Your task to perform on an android device: Open wifi settings Image 0: 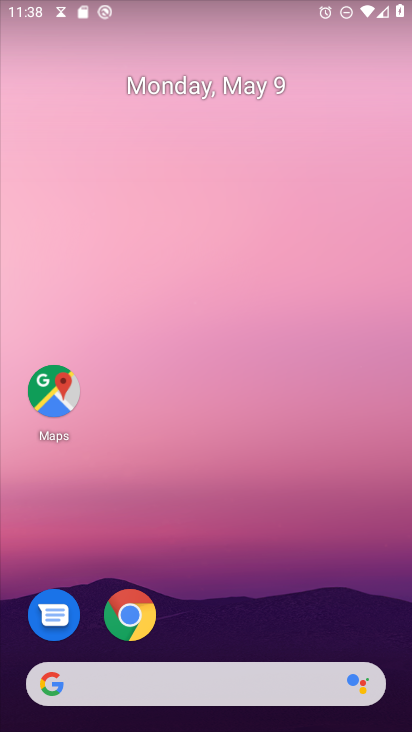
Step 0: drag from (214, 724) to (178, 266)
Your task to perform on an android device: Open wifi settings Image 1: 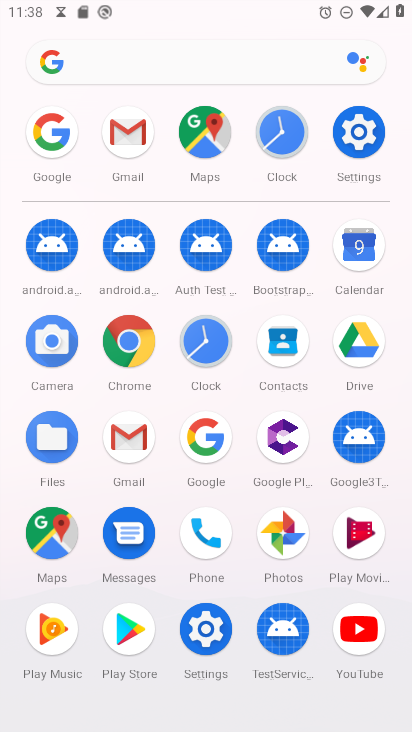
Step 1: click (360, 120)
Your task to perform on an android device: Open wifi settings Image 2: 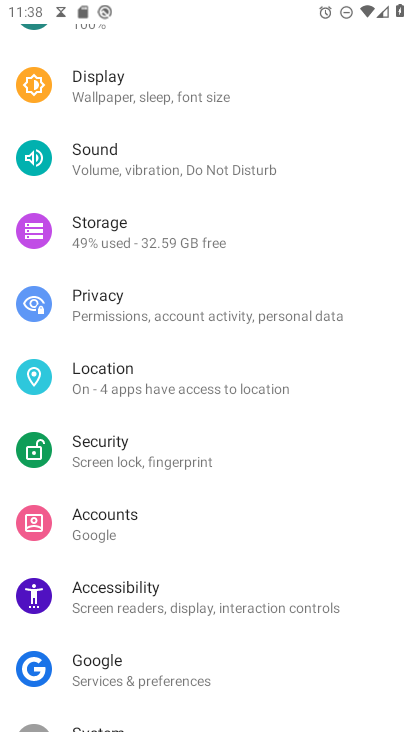
Step 2: drag from (206, 99) to (208, 395)
Your task to perform on an android device: Open wifi settings Image 3: 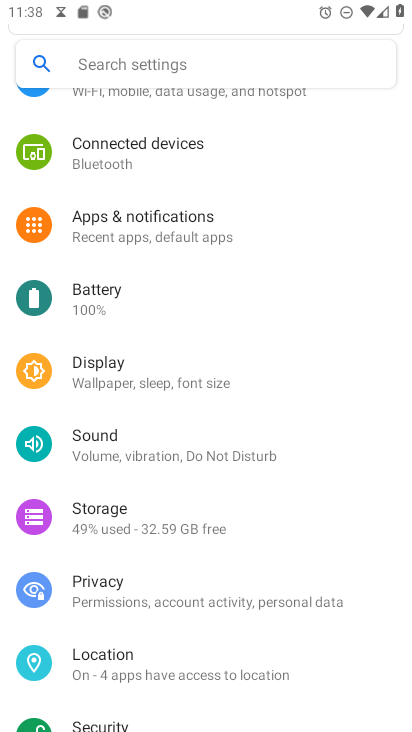
Step 3: drag from (235, 134) to (247, 494)
Your task to perform on an android device: Open wifi settings Image 4: 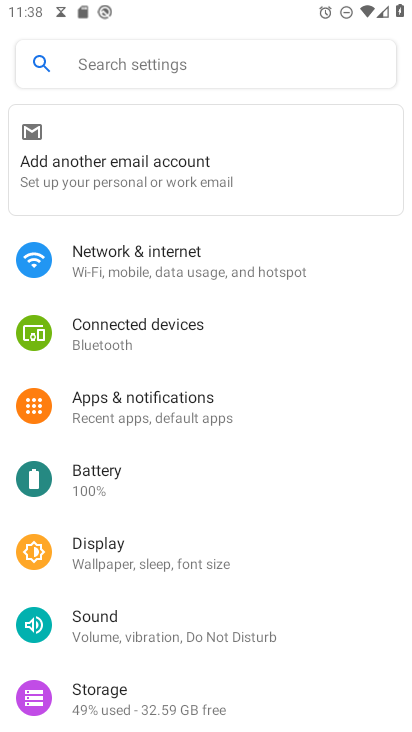
Step 4: click (136, 260)
Your task to perform on an android device: Open wifi settings Image 5: 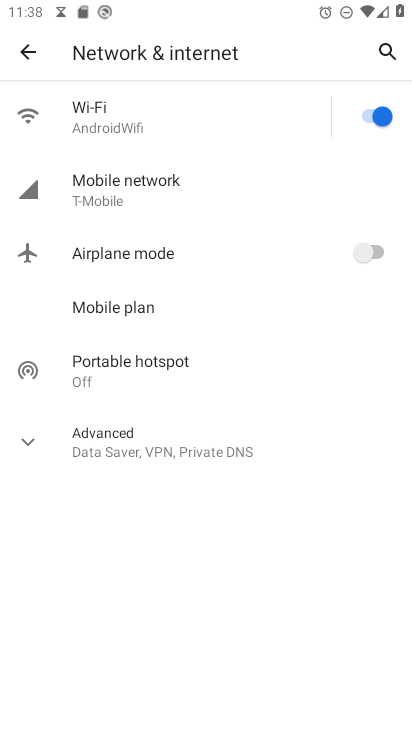
Step 5: click (97, 122)
Your task to perform on an android device: Open wifi settings Image 6: 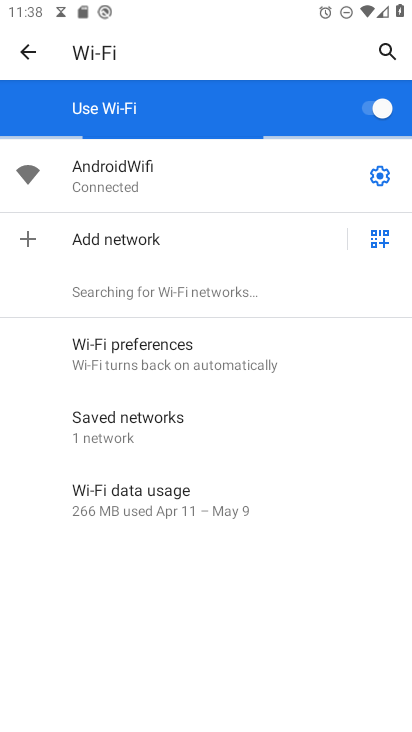
Step 6: task complete